Your task to perform on an android device: set the stopwatch Image 0: 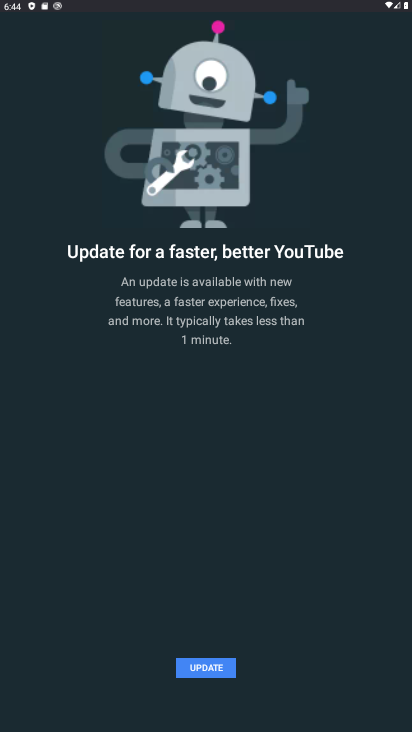
Step 0: press home button
Your task to perform on an android device: set the stopwatch Image 1: 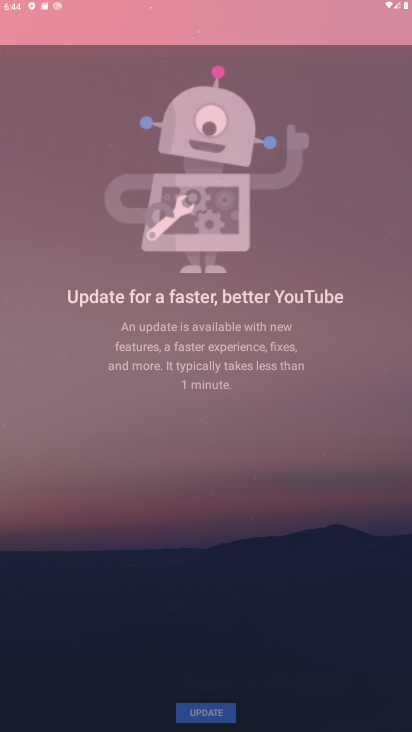
Step 1: drag from (367, 699) to (227, 2)
Your task to perform on an android device: set the stopwatch Image 2: 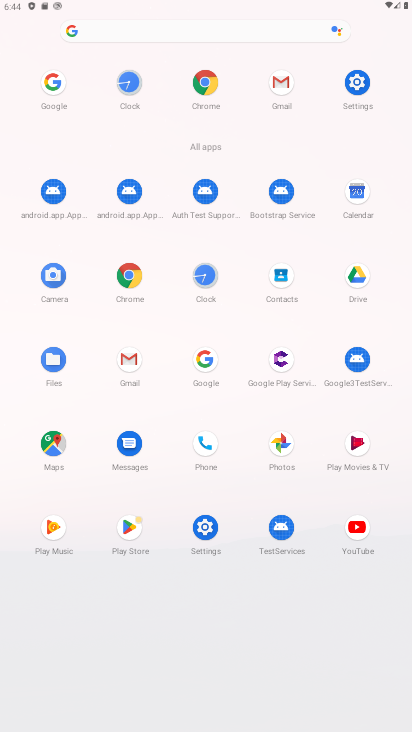
Step 2: click (203, 284)
Your task to perform on an android device: set the stopwatch Image 3: 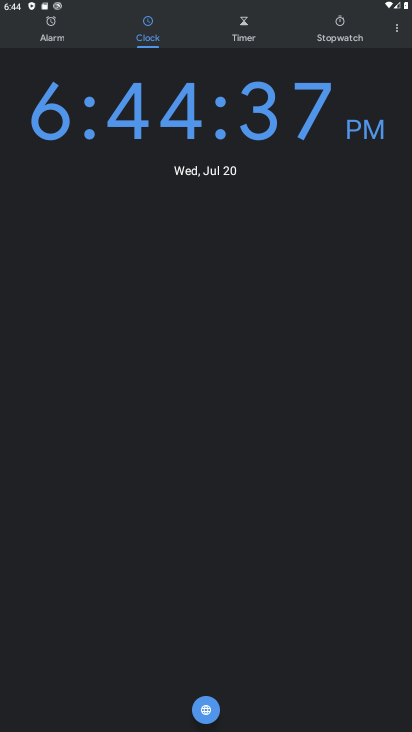
Step 3: click (338, 24)
Your task to perform on an android device: set the stopwatch Image 4: 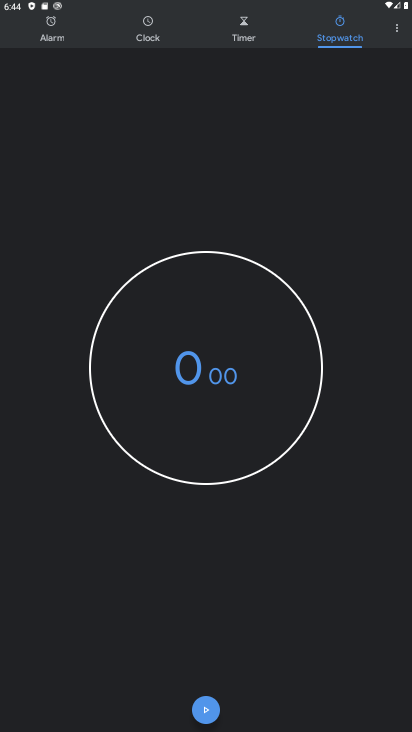
Step 4: click (209, 706)
Your task to perform on an android device: set the stopwatch Image 5: 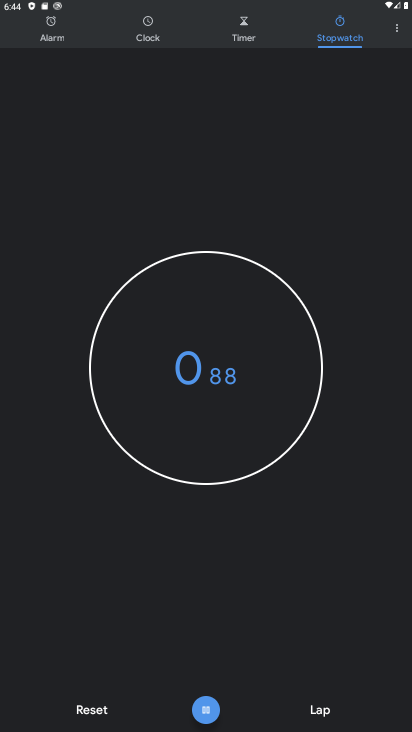
Step 5: click (209, 706)
Your task to perform on an android device: set the stopwatch Image 6: 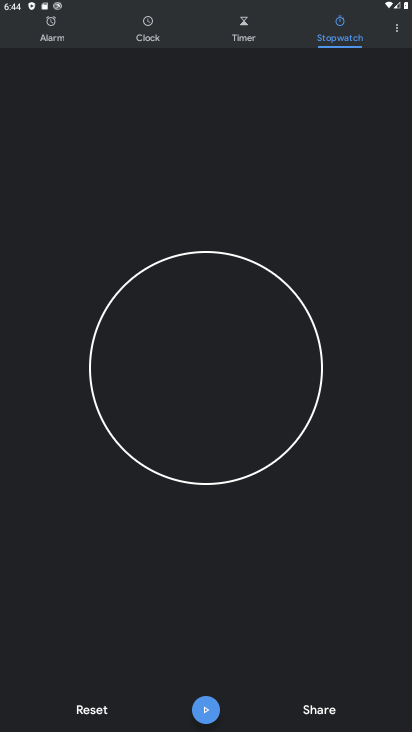
Step 6: task complete